Your task to perform on an android device: Open CNN.com Image 0: 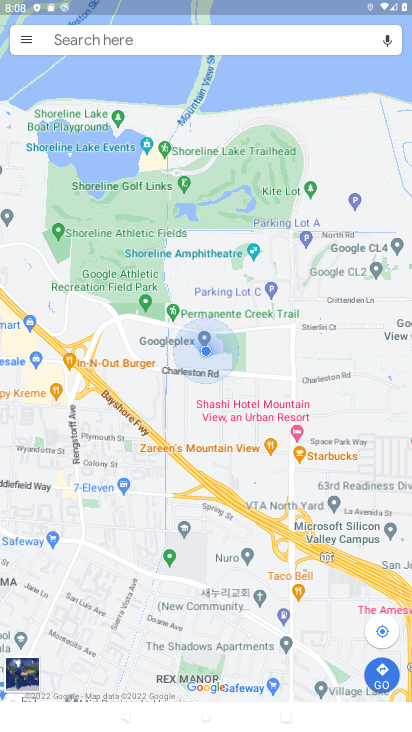
Step 0: press home button
Your task to perform on an android device: Open CNN.com Image 1: 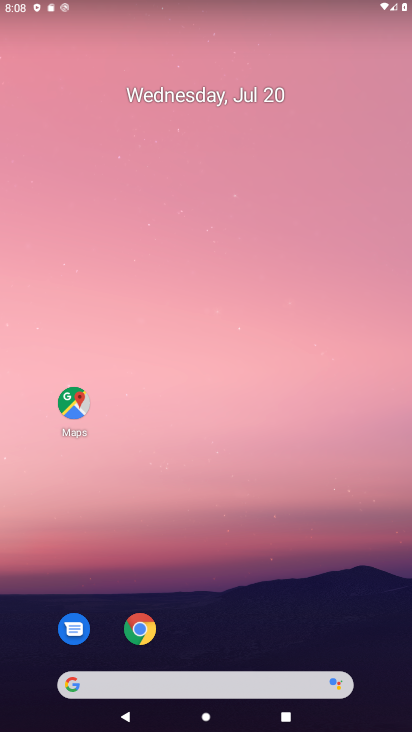
Step 1: click (142, 613)
Your task to perform on an android device: Open CNN.com Image 2: 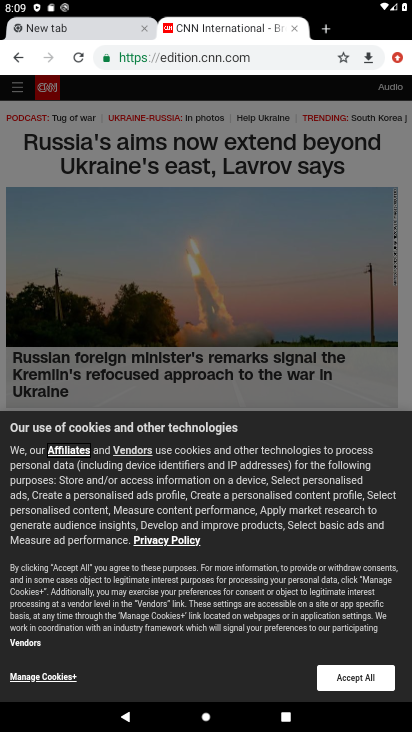
Step 2: task complete